Your task to perform on an android device: Search for "razer blade" on ebay.com, select the first entry, add it to the cart, then select checkout. Image 0: 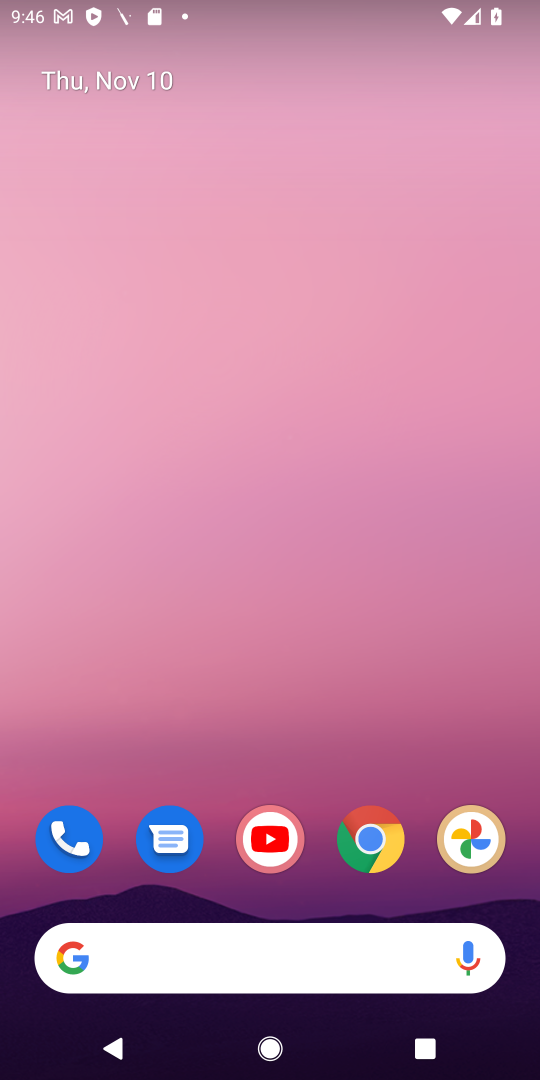
Step 0: click (373, 844)
Your task to perform on an android device: Search for "razer blade" on ebay.com, select the first entry, add it to the cart, then select checkout. Image 1: 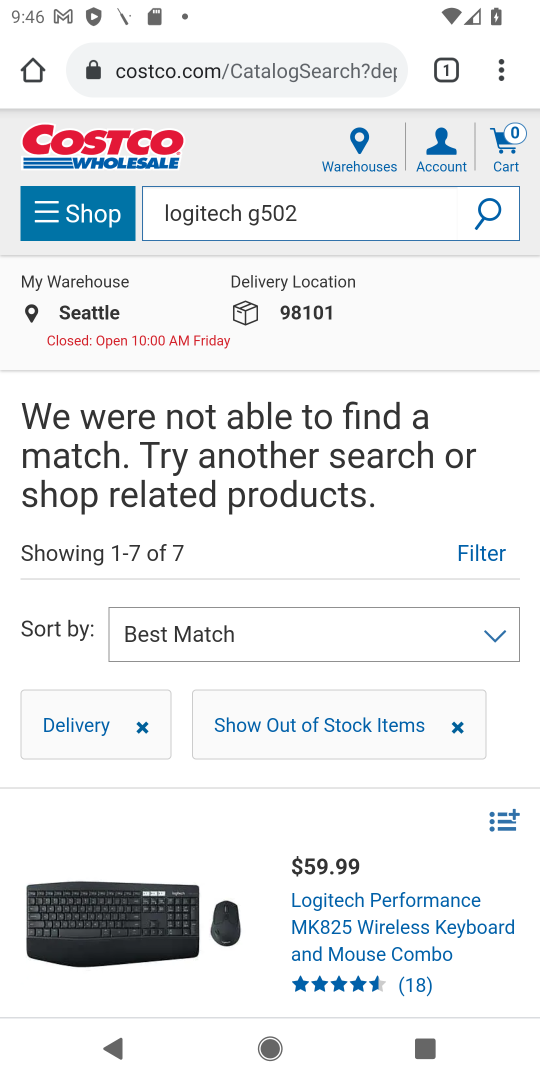
Step 1: click (281, 58)
Your task to perform on an android device: Search for "razer blade" on ebay.com, select the first entry, add it to the cart, then select checkout. Image 2: 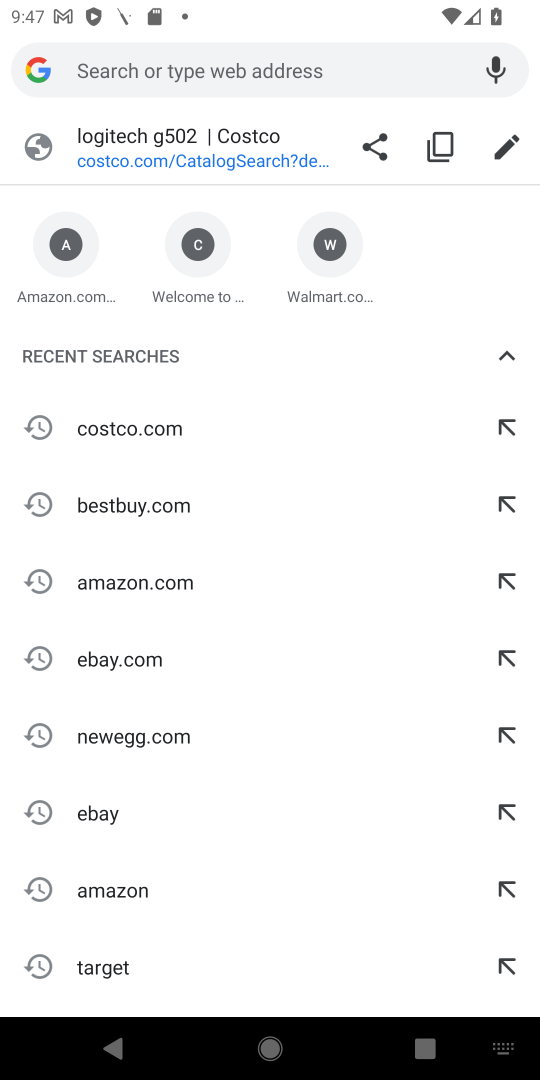
Step 2: type "ebay.com"
Your task to perform on an android device: Search for "razer blade" on ebay.com, select the first entry, add it to the cart, then select checkout. Image 3: 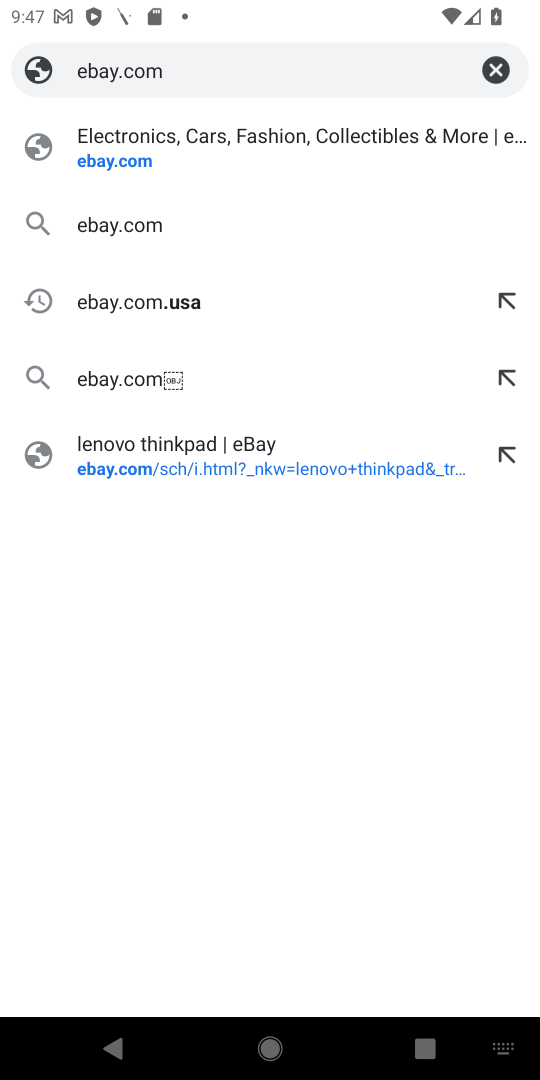
Step 3: click (141, 221)
Your task to perform on an android device: Search for "razer blade" on ebay.com, select the first entry, add it to the cart, then select checkout. Image 4: 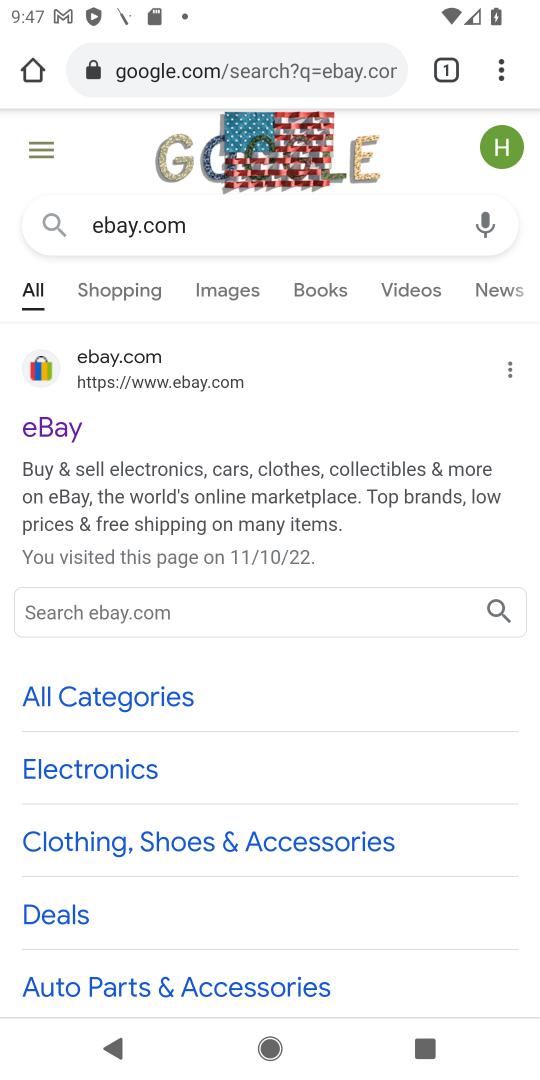
Step 4: click (180, 384)
Your task to perform on an android device: Search for "razer blade" on ebay.com, select the first entry, add it to the cart, then select checkout. Image 5: 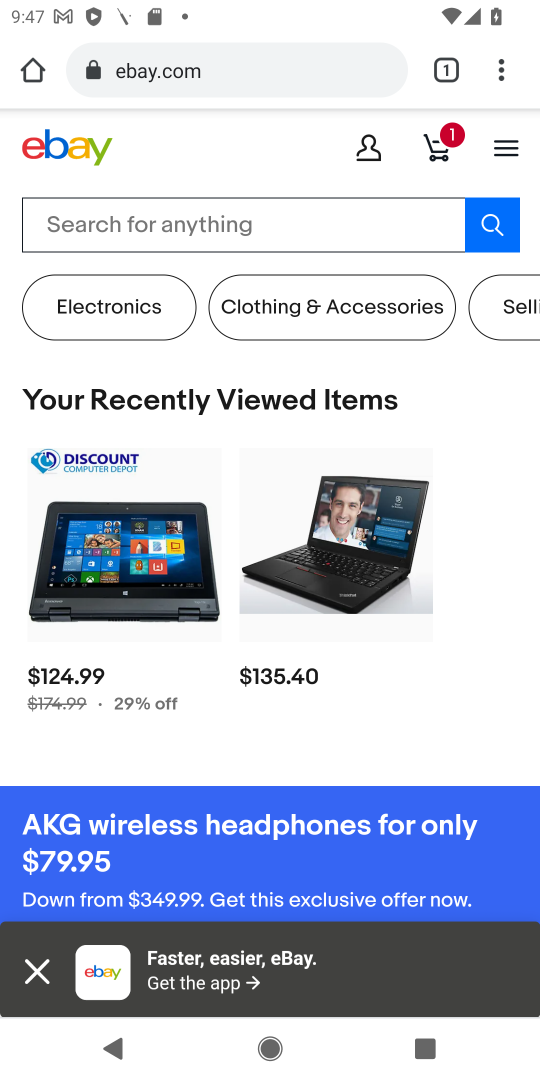
Step 5: click (336, 224)
Your task to perform on an android device: Search for "razer blade" on ebay.com, select the first entry, add it to the cart, then select checkout. Image 6: 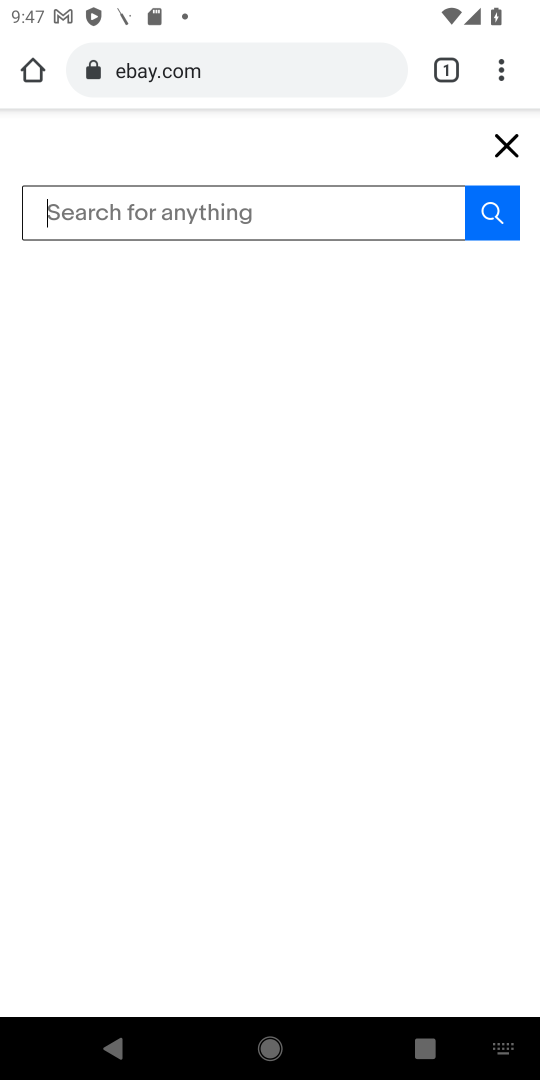
Step 6: type "razer blade"
Your task to perform on an android device: Search for "razer blade" on ebay.com, select the first entry, add it to the cart, then select checkout. Image 7: 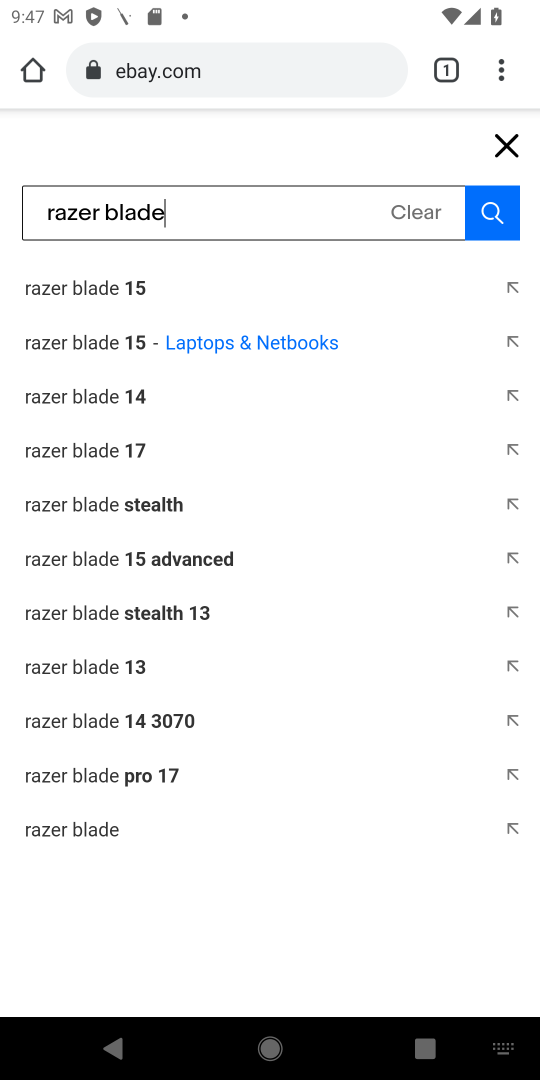
Step 7: click (87, 827)
Your task to perform on an android device: Search for "razer blade" on ebay.com, select the first entry, add it to the cart, then select checkout. Image 8: 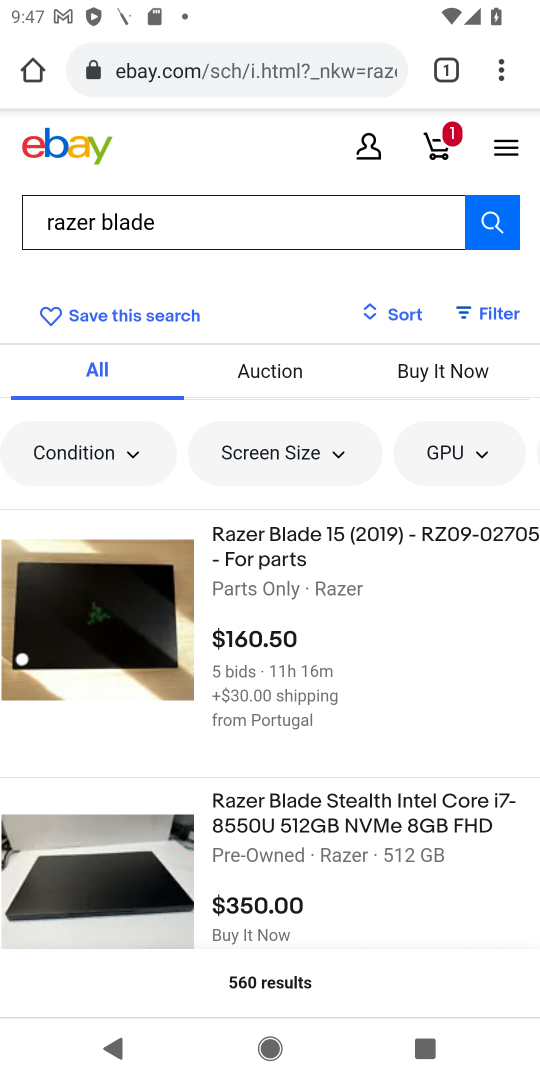
Step 8: drag from (367, 742) to (418, 471)
Your task to perform on an android device: Search for "razer blade" on ebay.com, select the first entry, add it to the cart, then select checkout. Image 9: 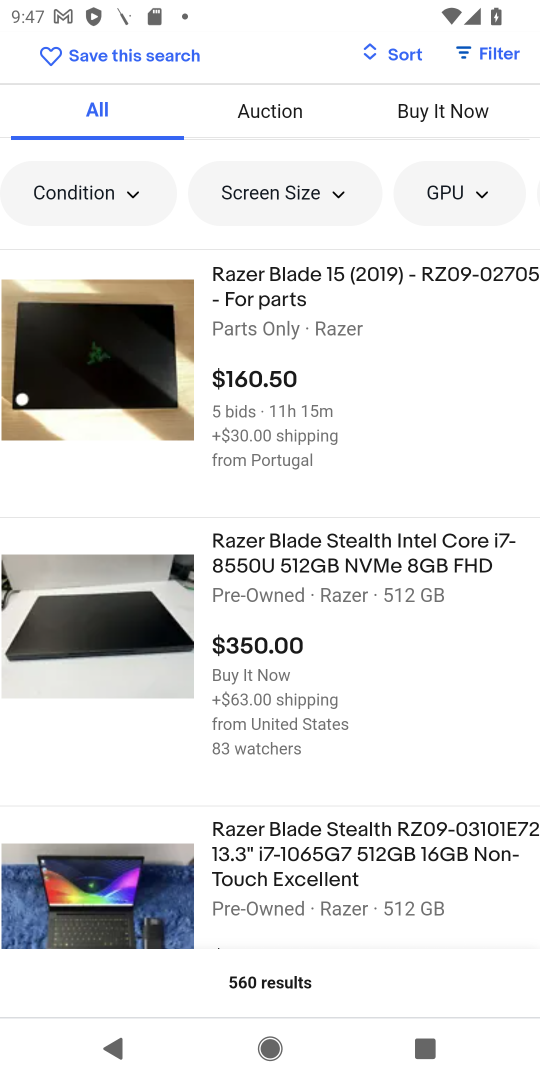
Step 9: drag from (368, 680) to (409, 374)
Your task to perform on an android device: Search for "razer blade" on ebay.com, select the first entry, add it to the cart, then select checkout. Image 10: 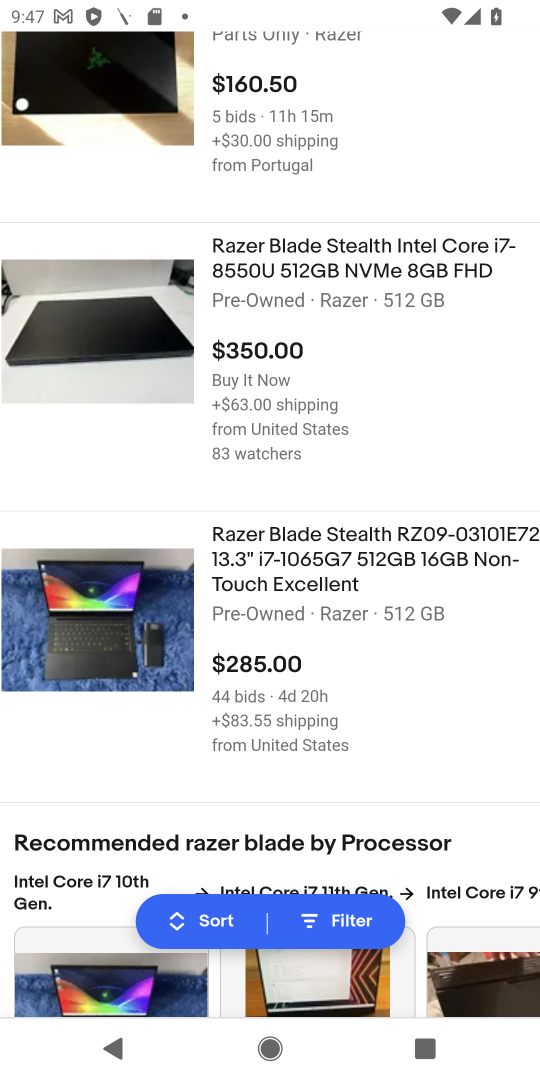
Step 10: click (90, 606)
Your task to perform on an android device: Search for "razer blade" on ebay.com, select the first entry, add it to the cart, then select checkout. Image 11: 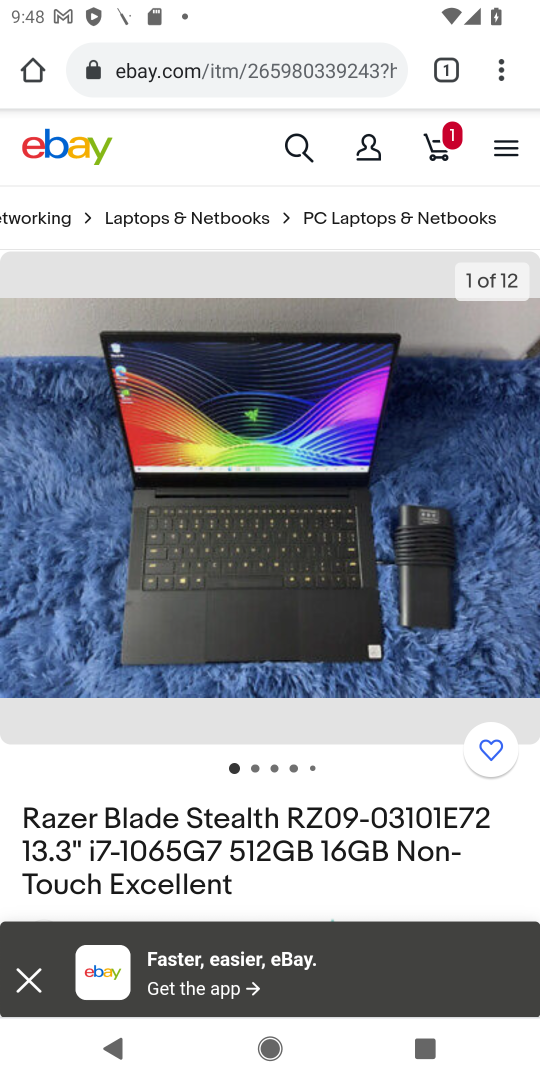
Step 11: drag from (172, 735) to (200, 311)
Your task to perform on an android device: Search for "razer blade" on ebay.com, select the first entry, add it to the cart, then select checkout. Image 12: 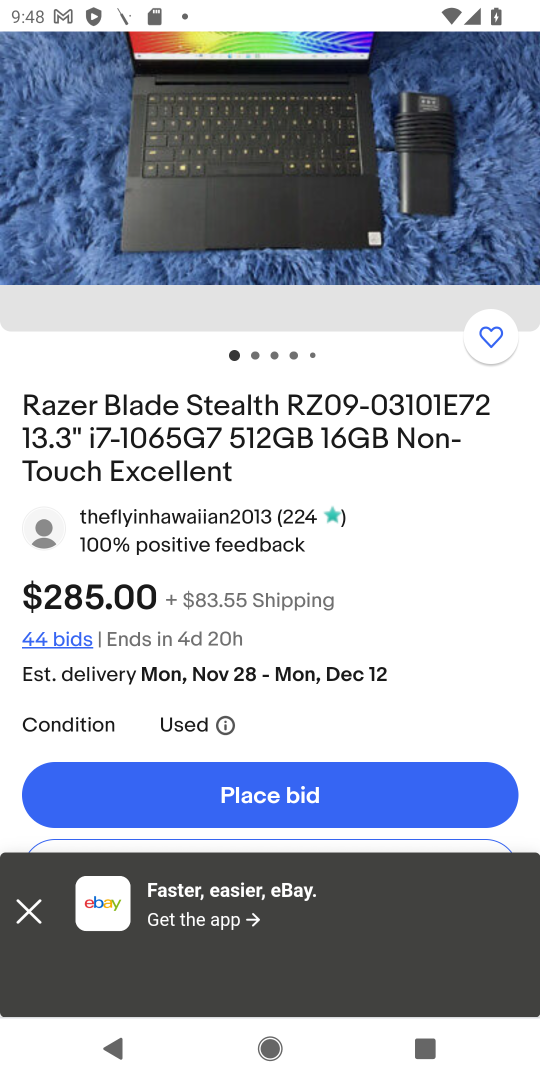
Step 12: press back button
Your task to perform on an android device: Search for "razer blade" on ebay.com, select the first entry, add it to the cart, then select checkout. Image 13: 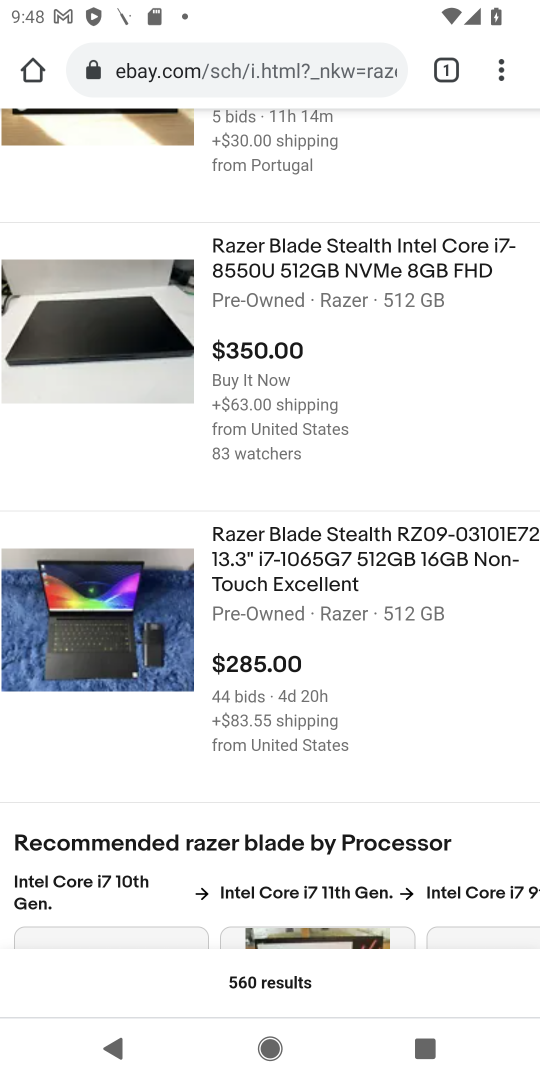
Step 13: drag from (360, 720) to (352, 411)
Your task to perform on an android device: Search for "razer blade" on ebay.com, select the first entry, add it to the cart, then select checkout. Image 14: 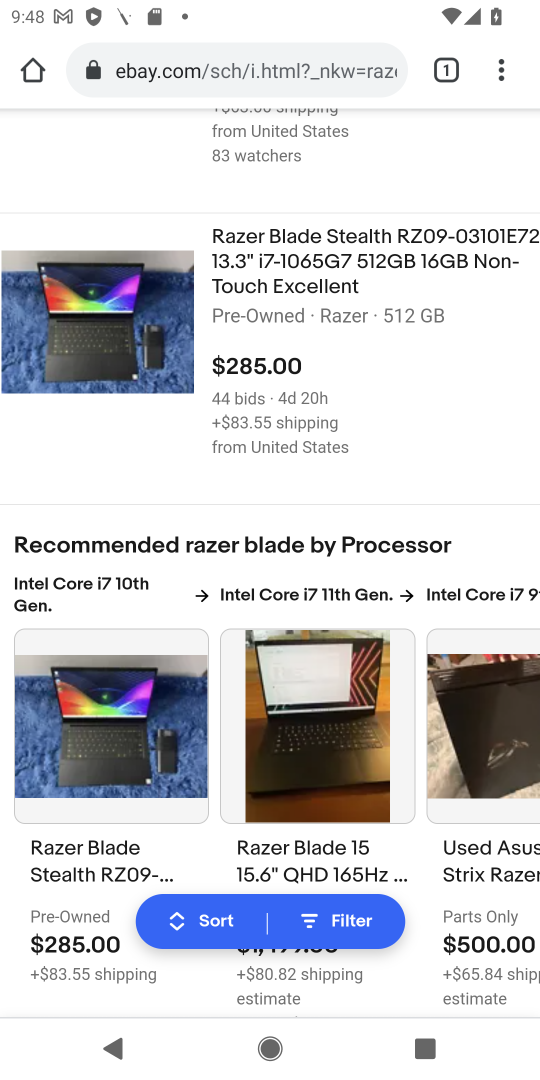
Step 14: drag from (302, 340) to (302, 716)
Your task to perform on an android device: Search for "razer blade" on ebay.com, select the first entry, add it to the cart, then select checkout. Image 15: 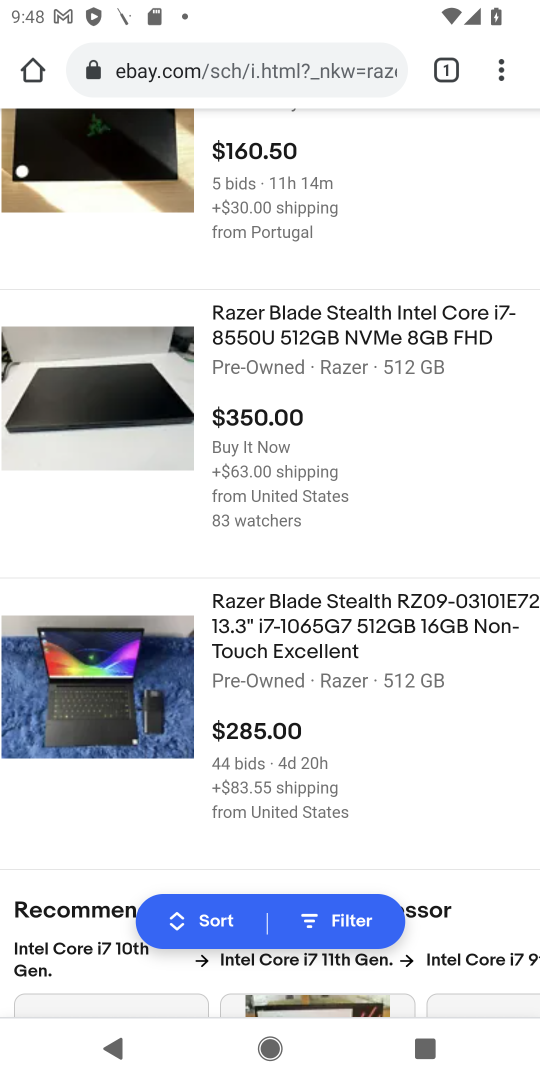
Step 15: drag from (142, 413) to (180, 648)
Your task to perform on an android device: Search for "razer blade" on ebay.com, select the first entry, add it to the cart, then select checkout. Image 16: 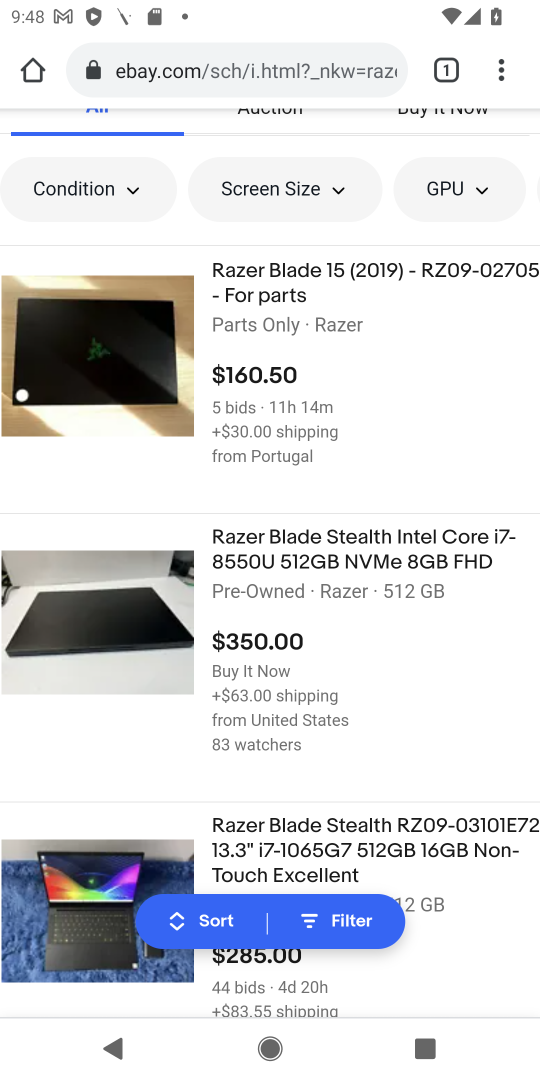
Step 16: click (74, 336)
Your task to perform on an android device: Search for "razer blade" on ebay.com, select the first entry, add it to the cart, then select checkout. Image 17: 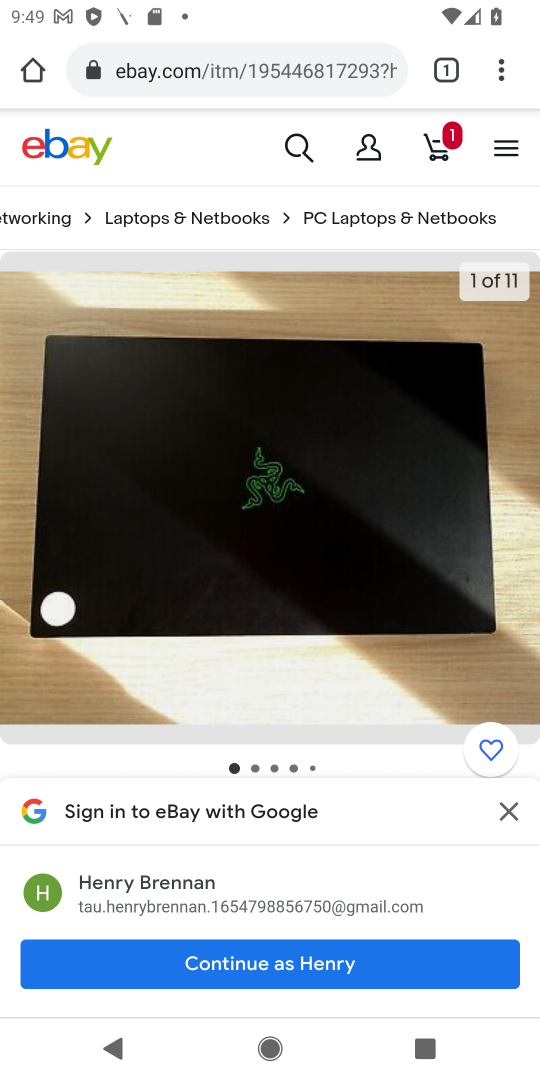
Step 17: click (510, 816)
Your task to perform on an android device: Search for "razer blade" on ebay.com, select the first entry, add it to the cart, then select checkout. Image 18: 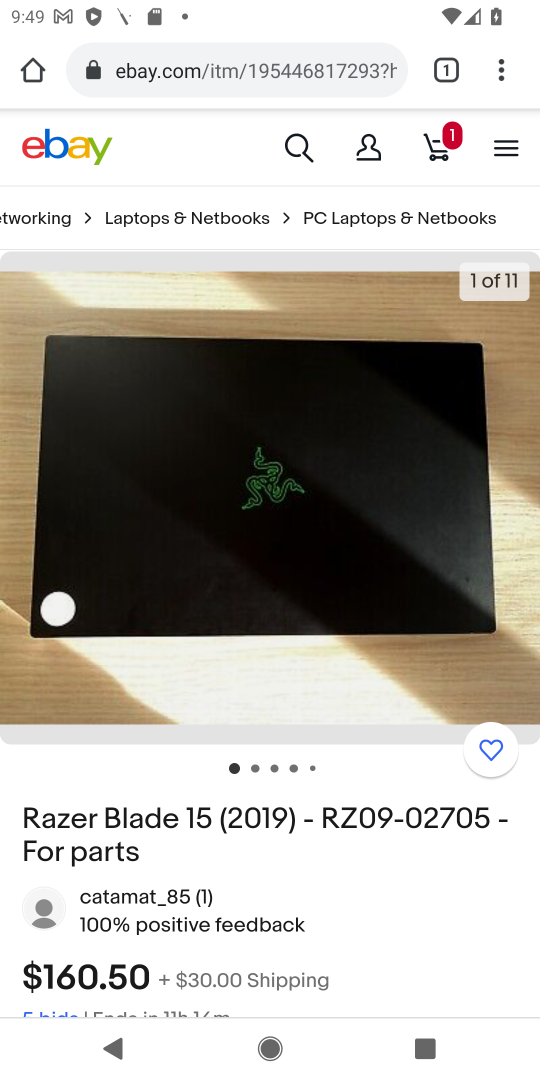
Step 18: drag from (416, 790) to (423, 267)
Your task to perform on an android device: Search for "razer blade" on ebay.com, select the first entry, add it to the cart, then select checkout. Image 19: 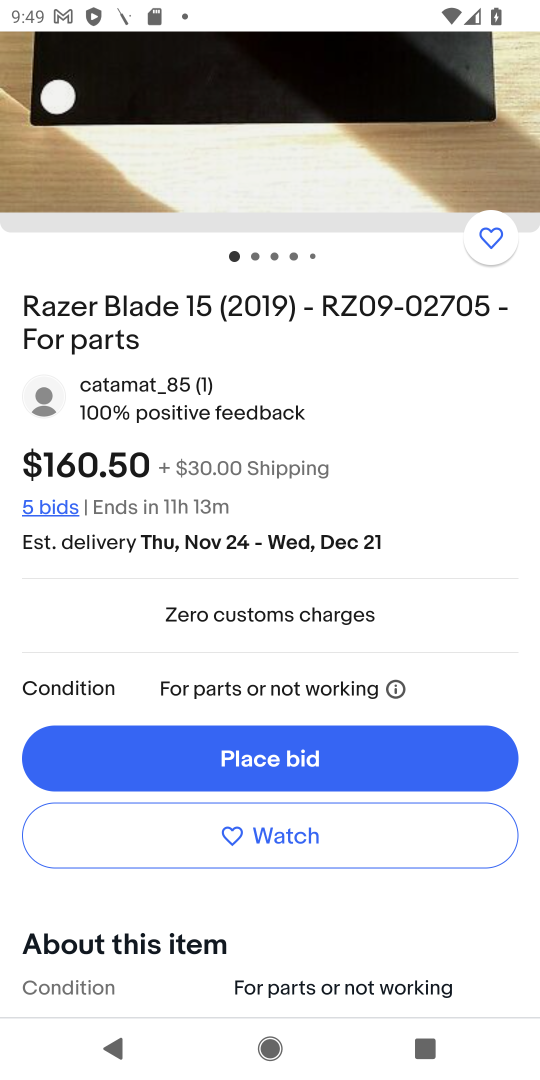
Step 19: press back button
Your task to perform on an android device: Search for "razer blade" on ebay.com, select the first entry, add it to the cart, then select checkout. Image 20: 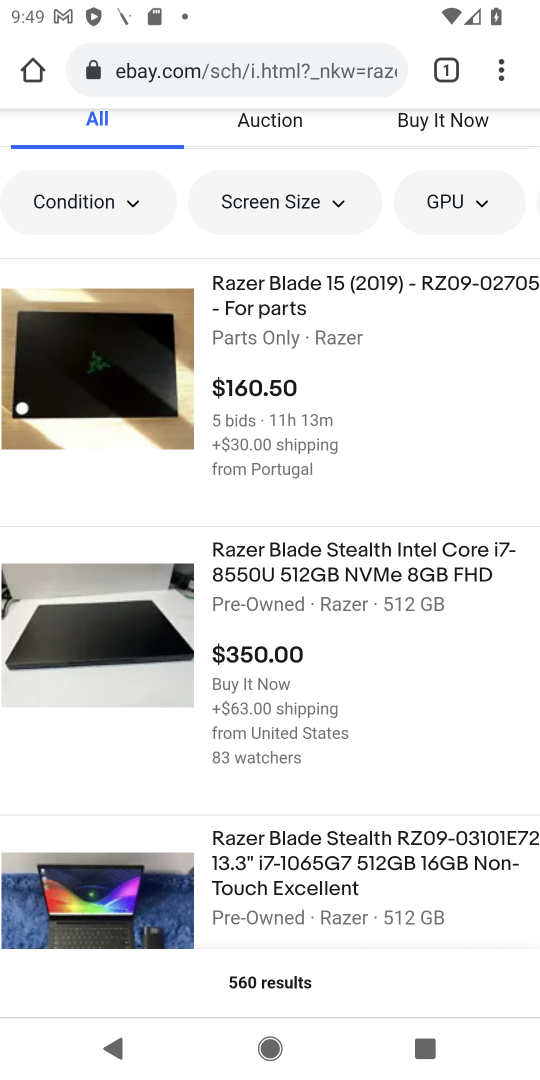
Step 20: drag from (341, 764) to (389, 339)
Your task to perform on an android device: Search for "razer blade" on ebay.com, select the first entry, add it to the cart, then select checkout. Image 21: 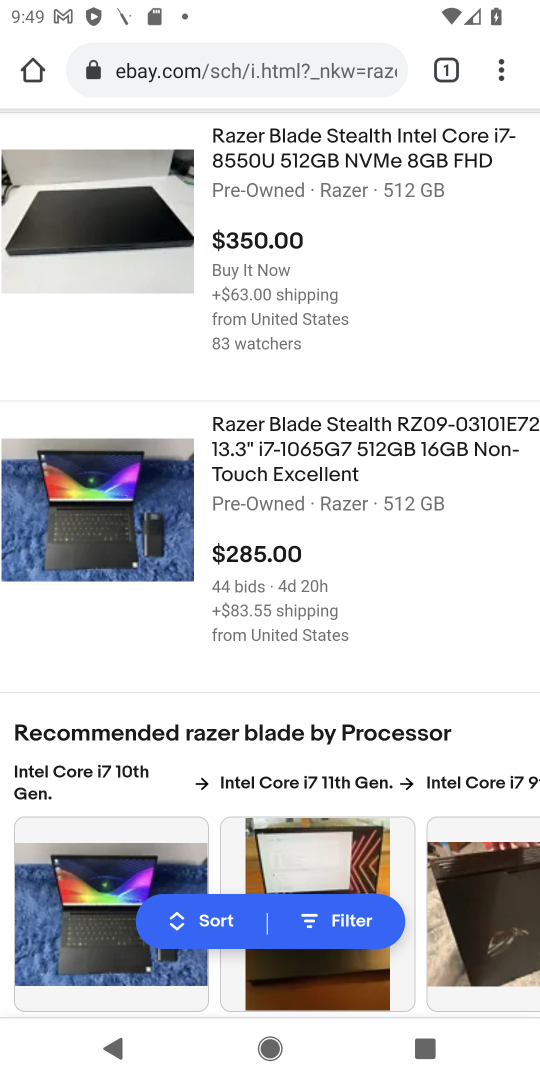
Step 21: drag from (338, 451) to (362, 134)
Your task to perform on an android device: Search for "razer blade" on ebay.com, select the first entry, add it to the cart, then select checkout. Image 22: 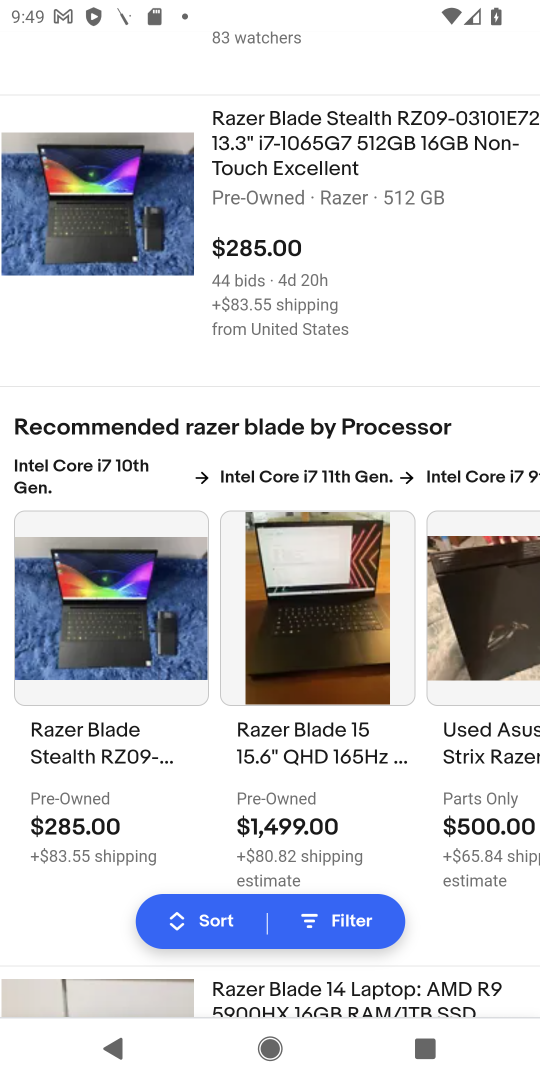
Step 22: drag from (423, 579) to (464, 183)
Your task to perform on an android device: Search for "razer blade" on ebay.com, select the first entry, add it to the cart, then select checkout. Image 23: 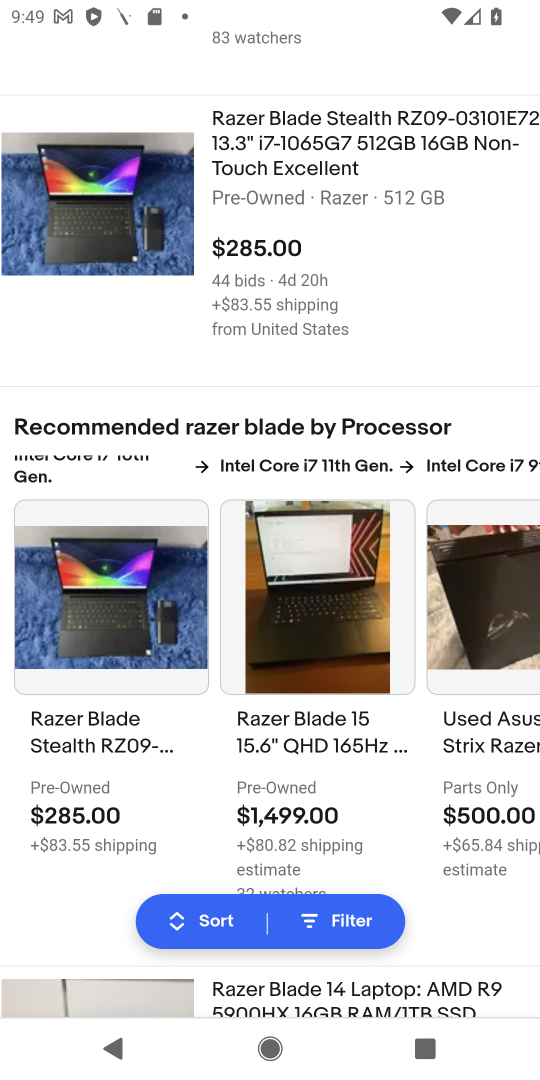
Step 23: drag from (193, 554) to (213, 268)
Your task to perform on an android device: Search for "razer blade" on ebay.com, select the first entry, add it to the cart, then select checkout. Image 24: 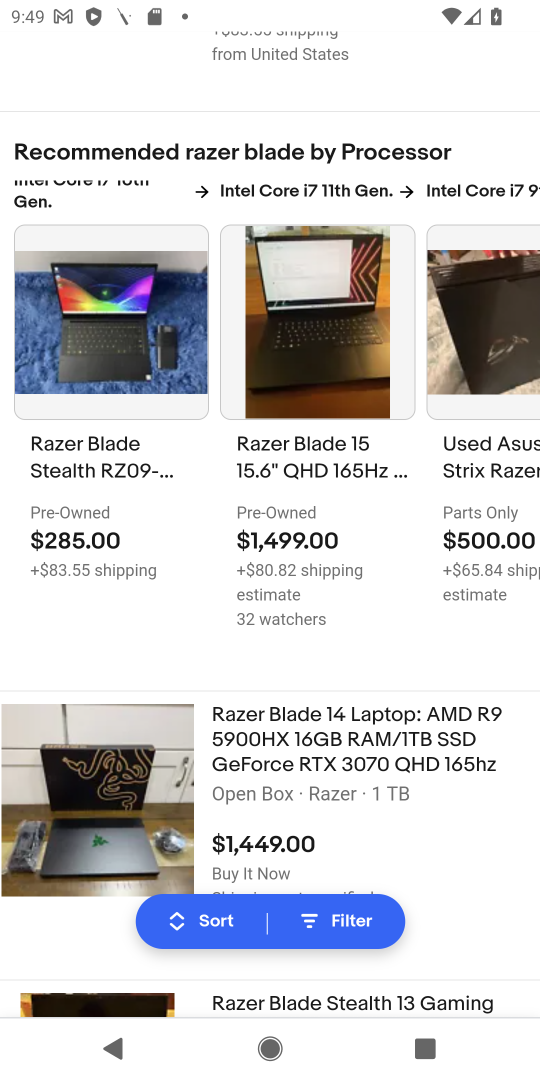
Step 24: click (117, 833)
Your task to perform on an android device: Search for "razer blade" on ebay.com, select the first entry, add it to the cart, then select checkout. Image 25: 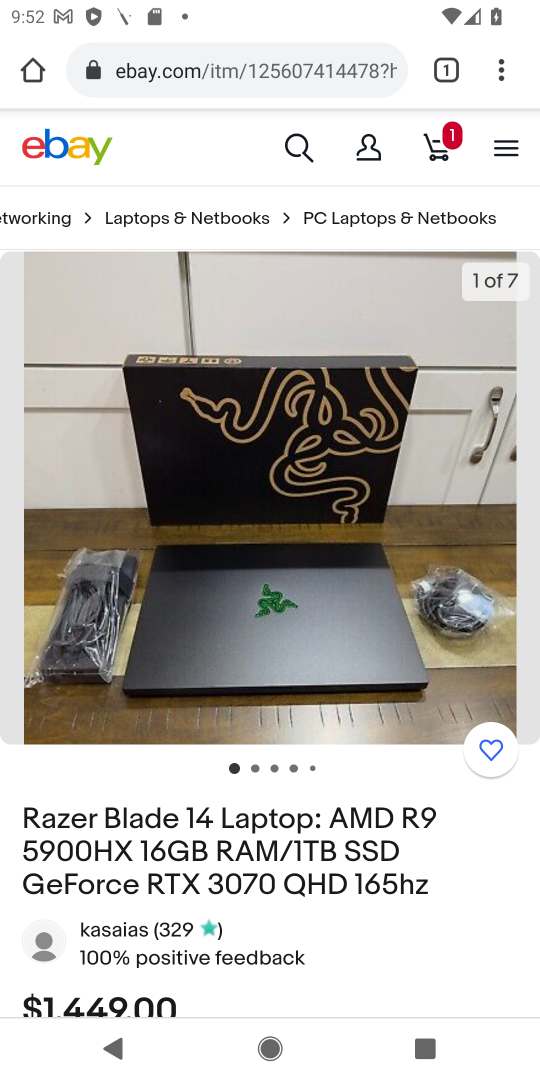
Step 25: drag from (355, 789) to (353, 364)
Your task to perform on an android device: Search for "razer blade" on ebay.com, select the first entry, add it to the cart, then select checkout. Image 26: 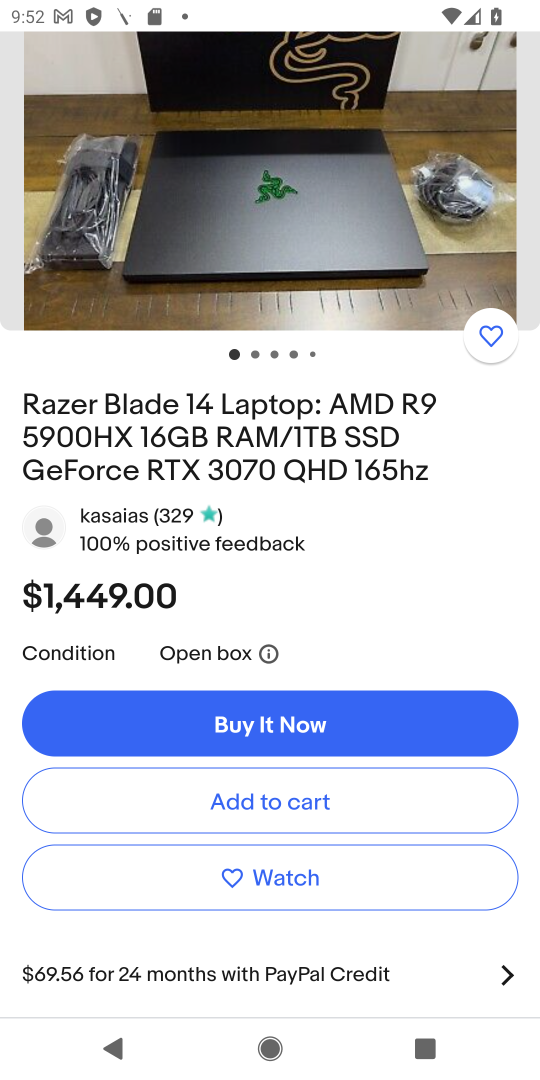
Step 26: click (280, 801)
Your task to perform on an android device: Search for "razer blade" on ebay.com, select the first entry, add it to the cart, then select checkout. Image 27: 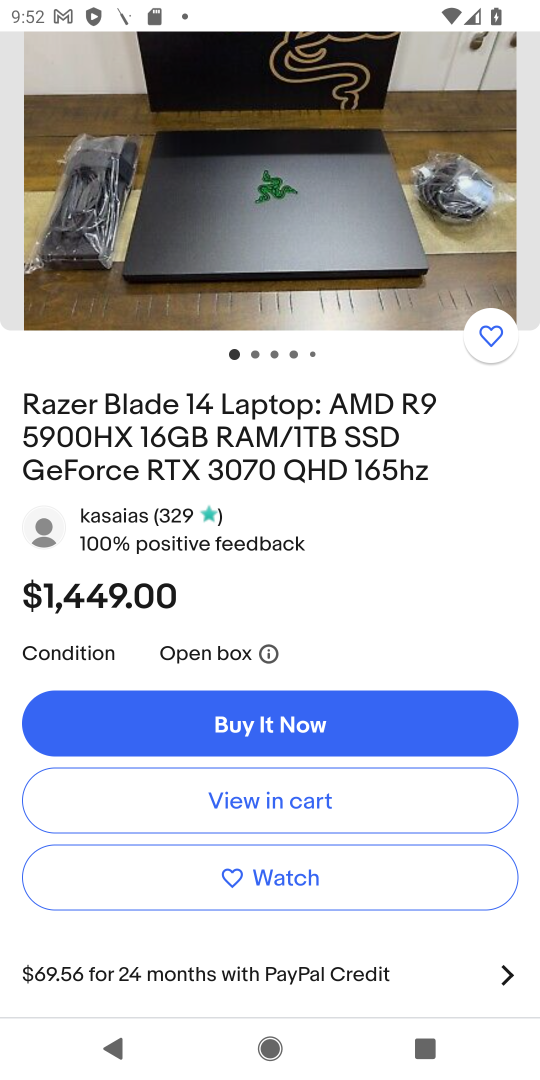
Step 27: click (280, 801)
Your task to perform on an android device: Search for "razer blade" on ebay.com, select the first entry, add it to the cart, then select checkout. Image 28: 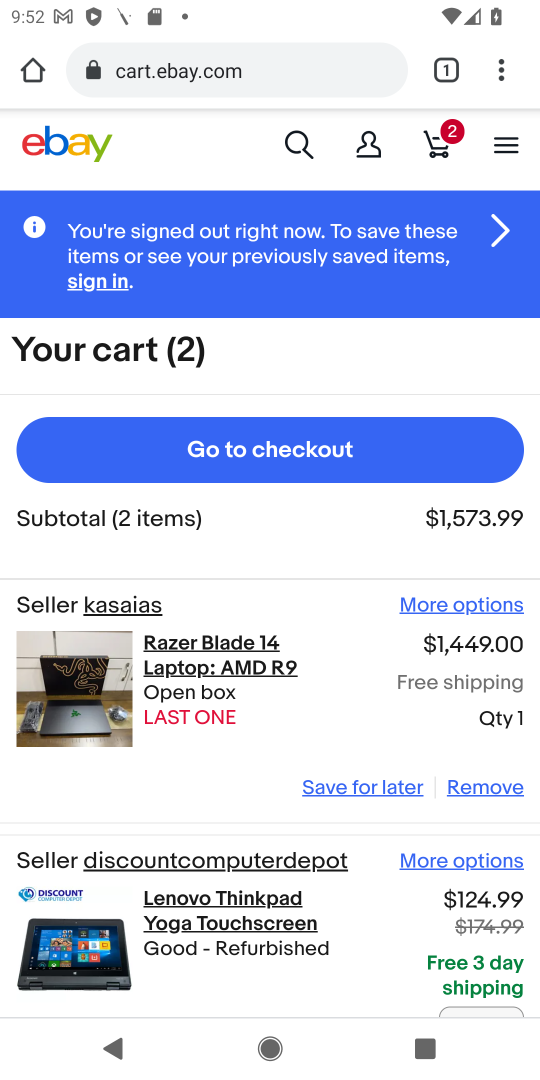
Step 28: click (338, 463)
Your task to perform on an android device: Search for "razer blade" on ebay.com, select the first entry, add it to the cart, then select checkout. Image 29: 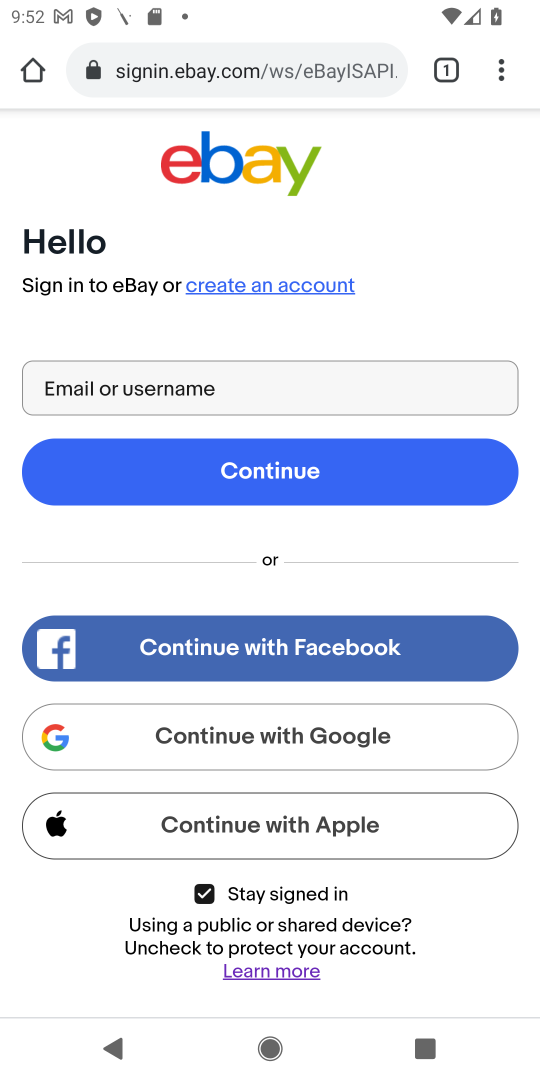
Step 29: task complete